Your task to perform on an android device: Open location settings Image 0: 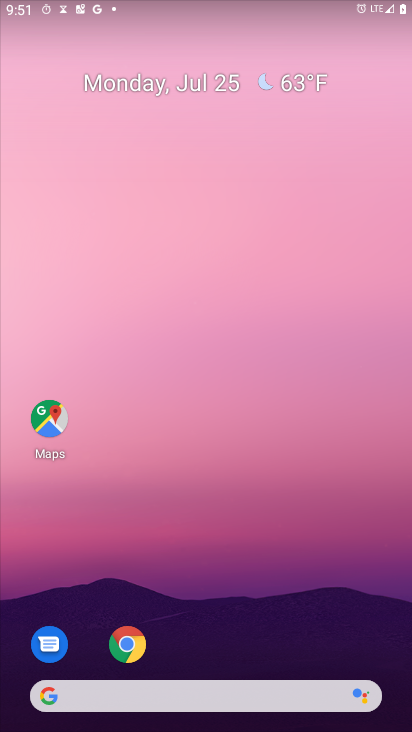
Step 0: drag from (190, 697) to (207, 317)
Your task to perform on an android device: Open location settings Image 1: 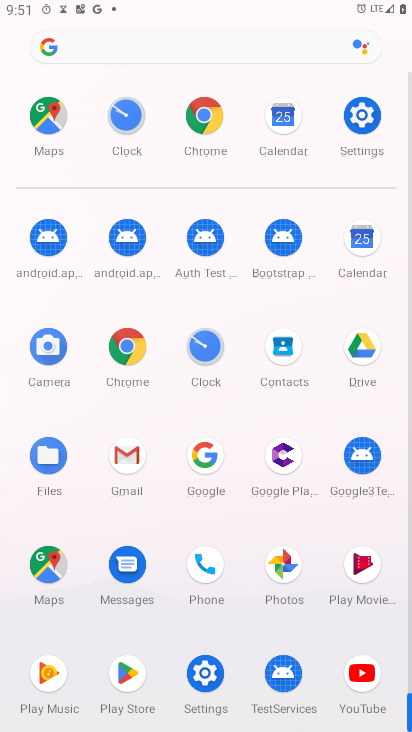
Step 1: click (365, 119)
Your task to perform on an android device: Open location settings Image 2: 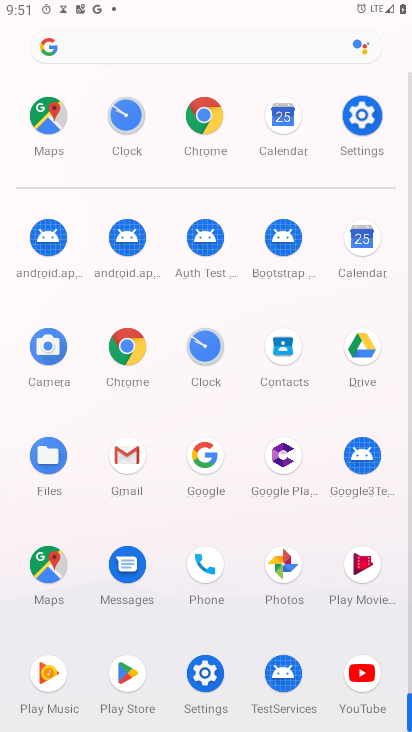
Step 2: click (365, 119)
Your task to perform on an android device: Open location settings Image 3: 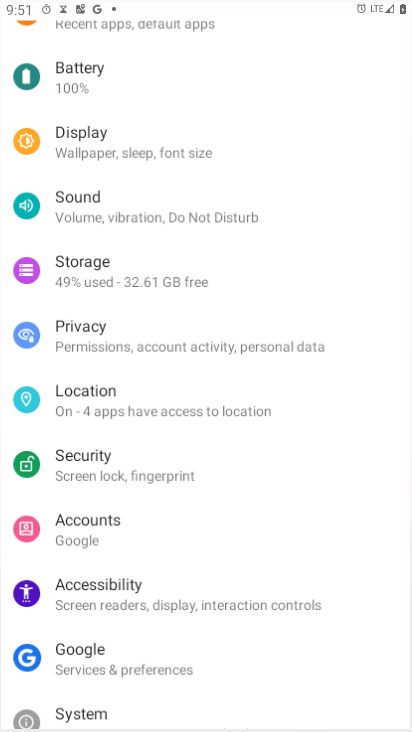
Step 3: click (340, 133)
Your task to perform on an android device: Open location settings Image 4: 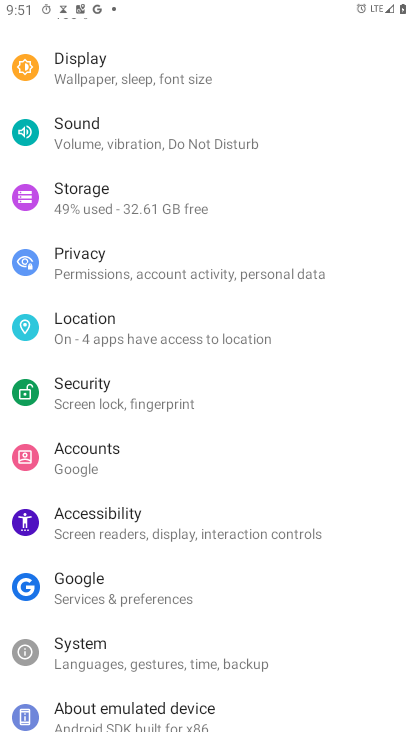
Step 4: click (340, 133)
Your task to perform on an android device: Open location settings Image 5: 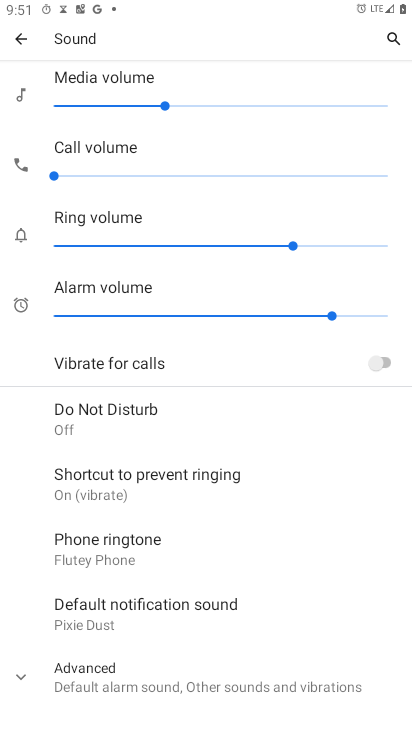
Step 5: click (16, 35)
Your task to perform on an android device: Open location settings Image 6: 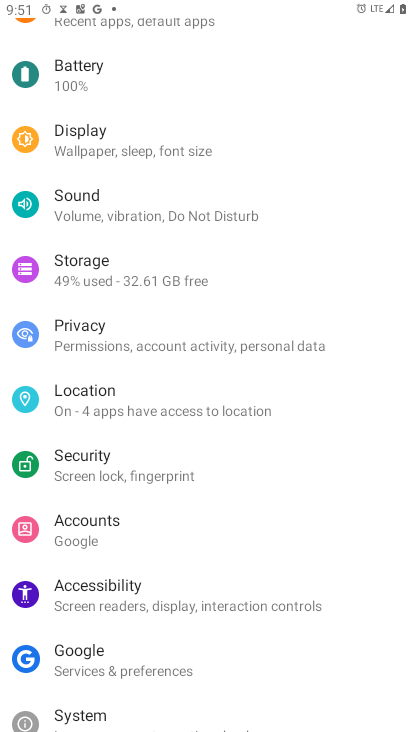
Step 6: click (98, 391)
Your task to perform on an android device: Open location settings Image 7: 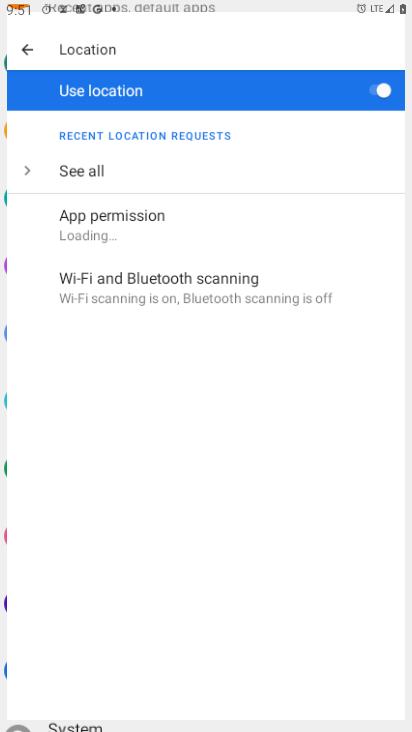
Step 7: click (106, 398)
Your task to perform on an android device: Open location settings Image 8: 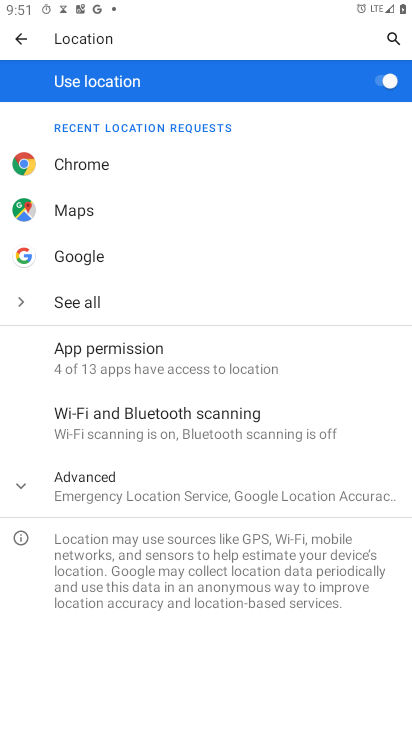
Step 8: task complete